Your task to perform on an android device: set an alarm Image 0: 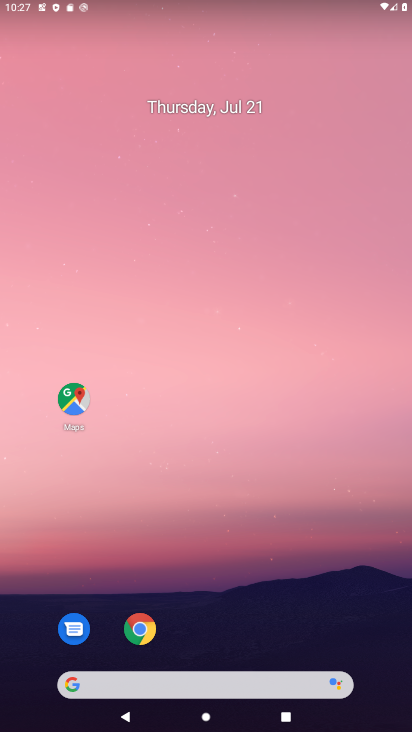
Step 0: drag from (310, 542) to (371, 67)
Your task to perform on an android device: set an alarm Image 1: 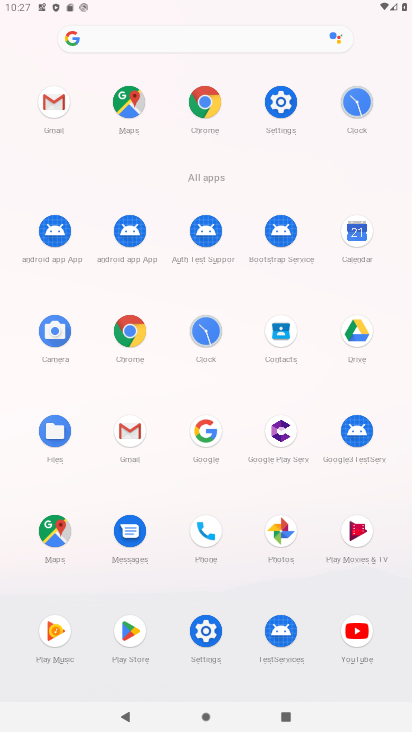
Step 1: click (198, 341)
Your task to perform on an android device: set an alarm Image 2: 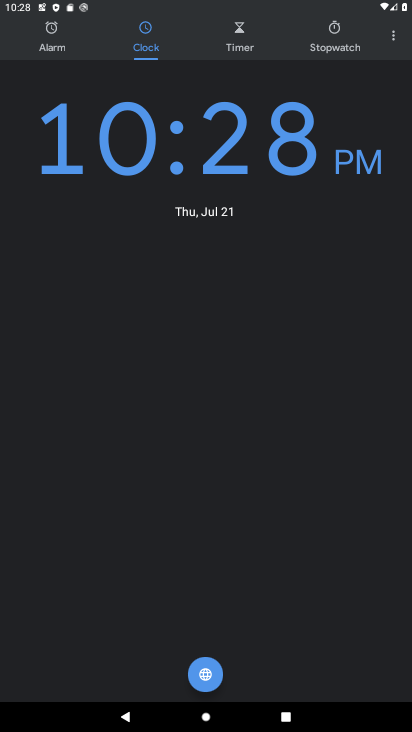
Step 2: click (51, 56)
Your task to perform on an android device: set an alarm Image 3: 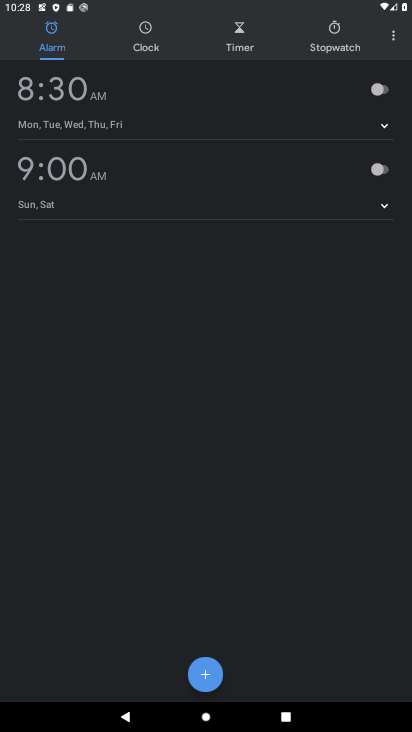
Step 3: click (199, 676)
Your task to perform on an android device: set an alarm Image 4: 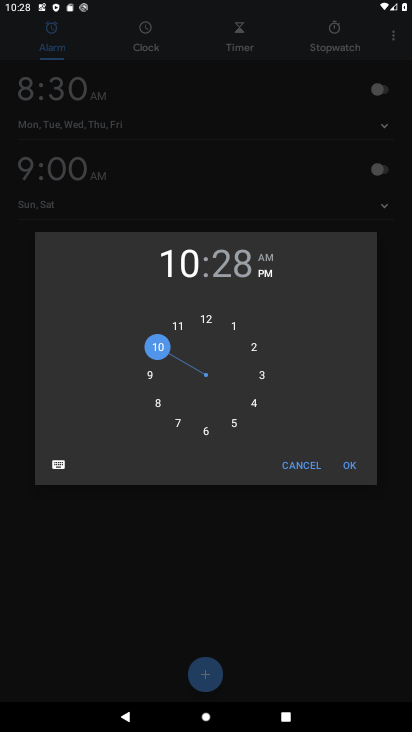
Step 4: click (345, 468)
Your task to perform on an android device: set an alarm Image 5: 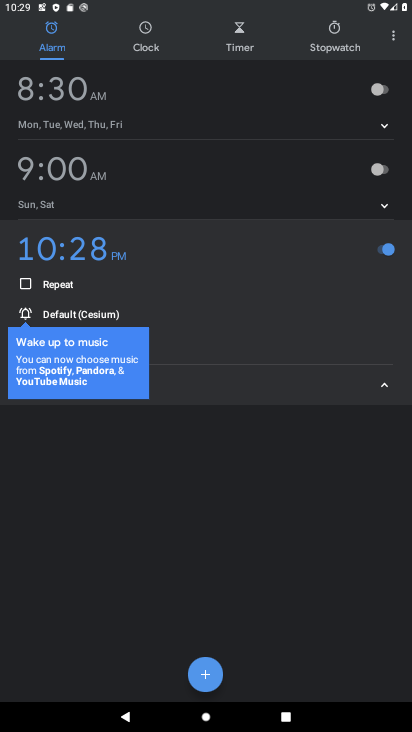
Step 5: task complete